Your task to perform on an android device: Go to privacy settings Image 0: 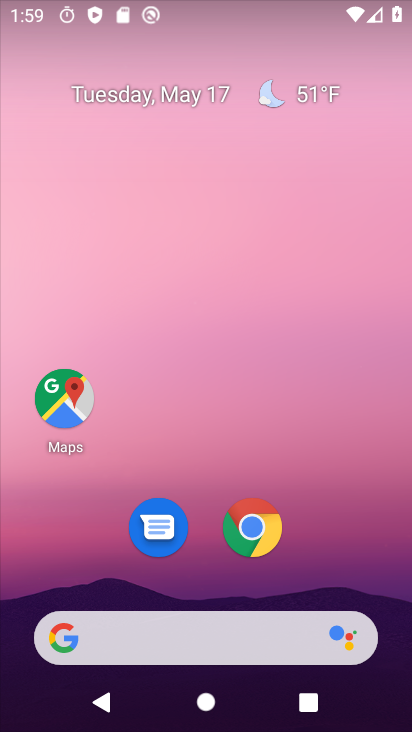
Step 0: drag from (332, 577) to (206, 98)
Your task to perform on an android device: Go to privacy settings Image 1: 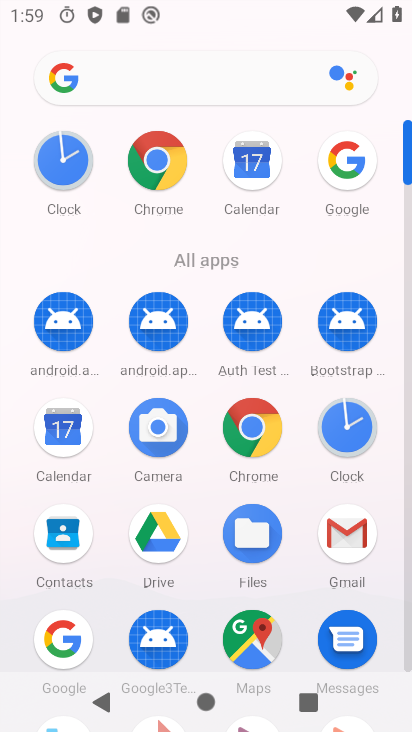
Step 1: drag from (192, 562) to (208, 360)
Your task to perform on an android device: Go to privacy settings Image 2: 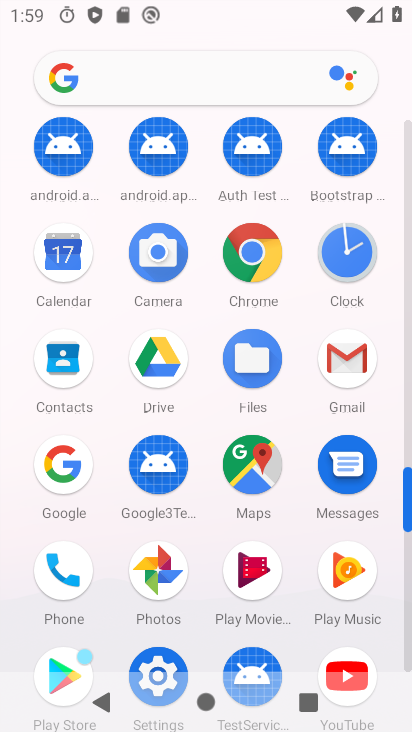
Step 2: drag from (207, 472) to (206, 311)
Your task to perform on an android device: Go to privacy settings Image 3: 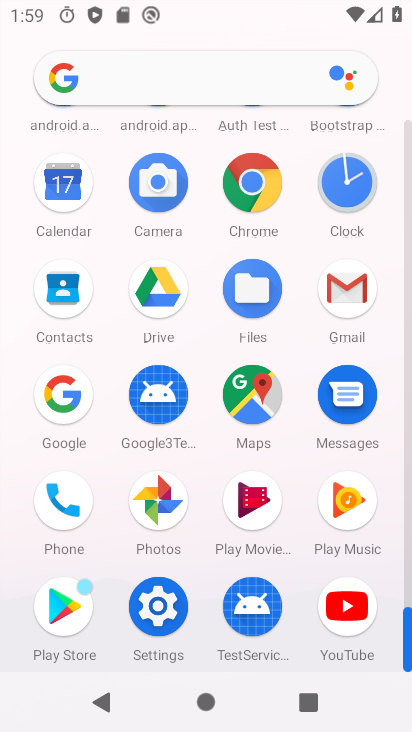
Step 3: click (155, 604)
Your task to perform on an android device: Go to privacy settings Image 4: 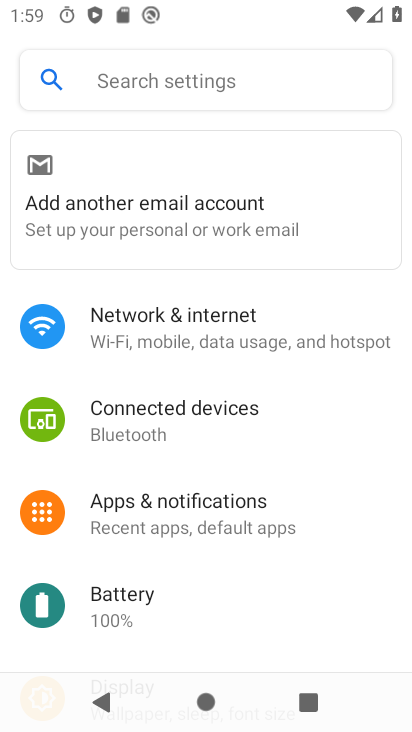
Step 4: task complete